Your task to perform on an android device: turn on showing notifications on the lock screen Image 0: 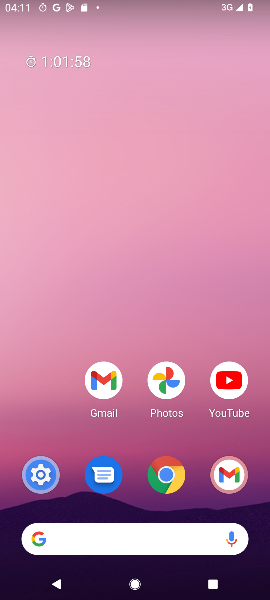
Step 0: press home button
Your task to perform on an android device: turn on showing notifications on the lock screen Image 1: 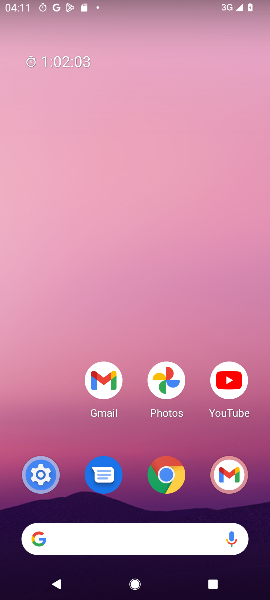
Step 1: drag from (49, 432) to (48, 229)
Your task to perform on an android device: turn on showing notifications on the lock screen Image 2: 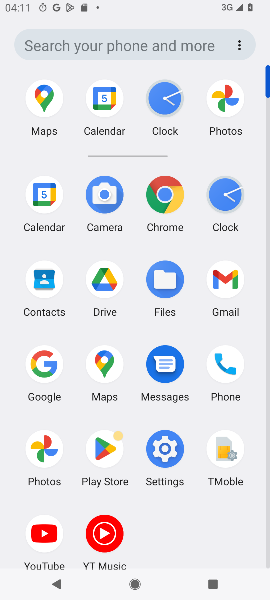
Step 2: click (161, 454)
Your task to perform on an android device: turn on showing notifications on the lock screen Image 3: 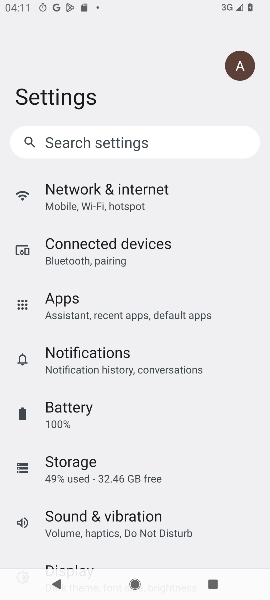
Step 3: click (175, 358)
Your task to perform on an android device: turn on showing notifications on the lock screen Image 4: 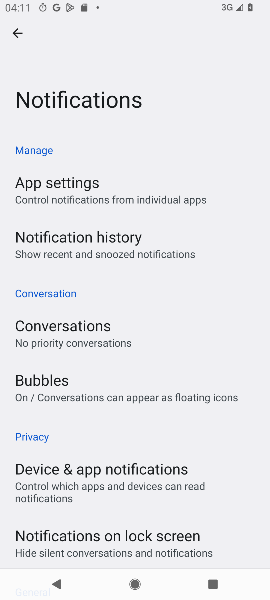
Step 4: drag from (238, 458) to (232, 393)
Your task to perform on an android device: turn on showing notifications on the lock screen Image 5: 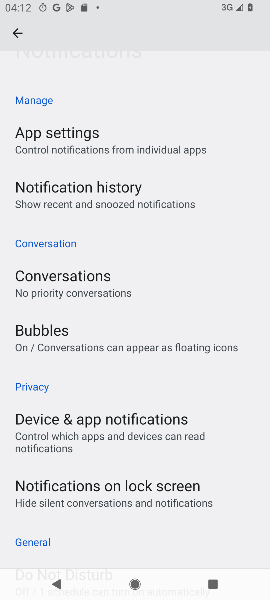
Step 5: drag from (235, 487) to (235, 393)
Your task to perform on an android device: turn on showing notifications on the lock screen Image 6: 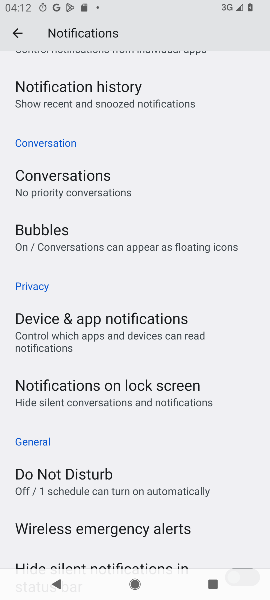
Step 6: drag from (228, 490) to (234, 397)
Your task to perform on an android device: turn on showing notifications on the lock screen Image 7: 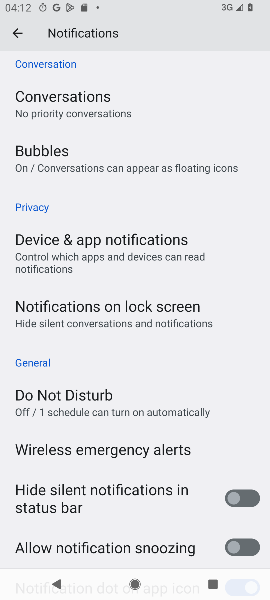
Step 7: click (146, 317)
Your task to perform on an android device: turn on showing notifications on the lock screen Image 8: 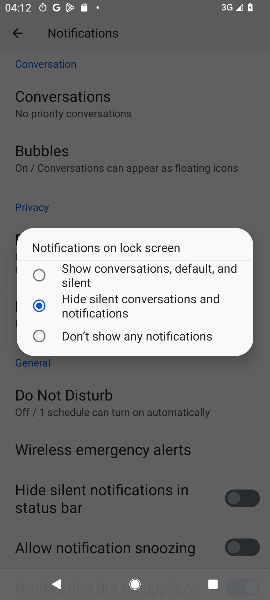
Step 8: click (118, 272)
Your task to perform on an android device: turn on showing notifications on the lock screen Image 9: 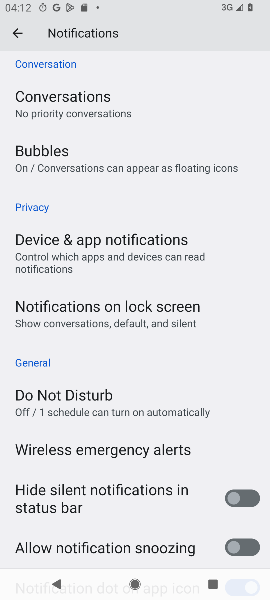
Step 9: task complete